Your task to perform on an android device: turn on javascript in the chrome app Image 0: 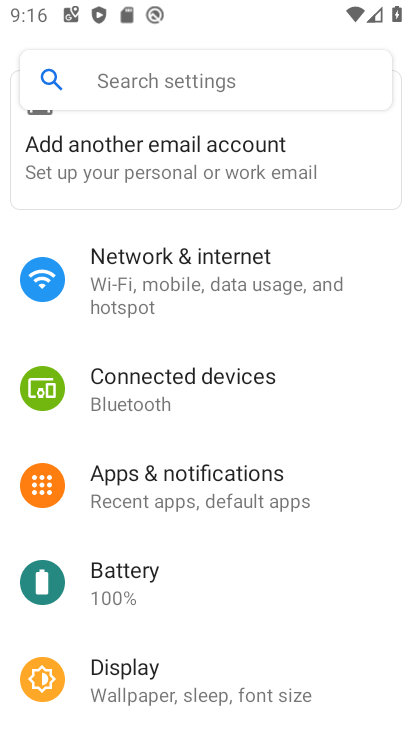
Step 0: press home button
Your task to perform on an android device: turn on javascript in the chrome app Image 1: 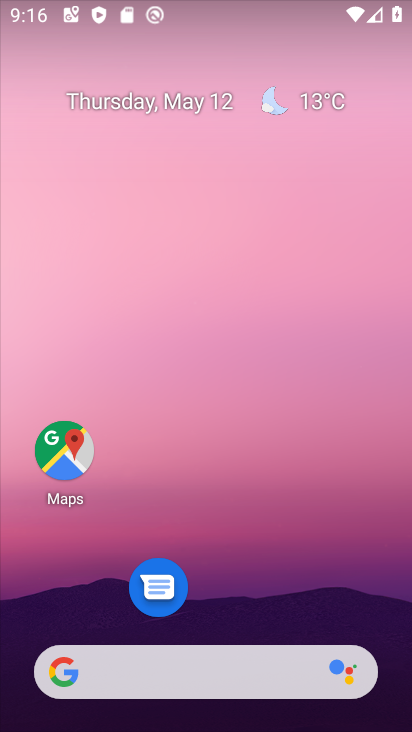
Step 1: drag from (230, 636) to (256, 24)
Your task to perform on an android device: turn on javascript in the chrome app Image 2: 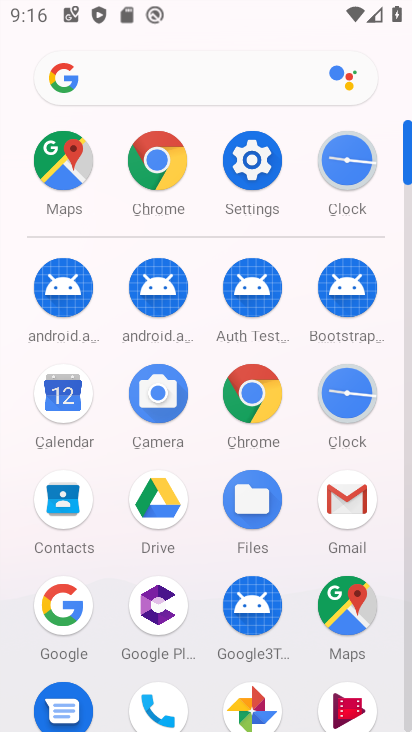
Step 2: click (237, 374)
Your task to perform on an android device: turn on javascript in the chrome app Image 3: 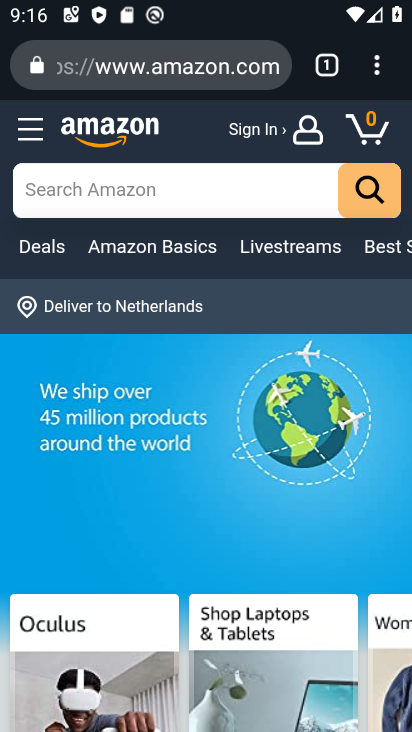
Step 3: click (367, 71)
Your task to perform on an android device: turn on javascript in the chrome app Image 4: 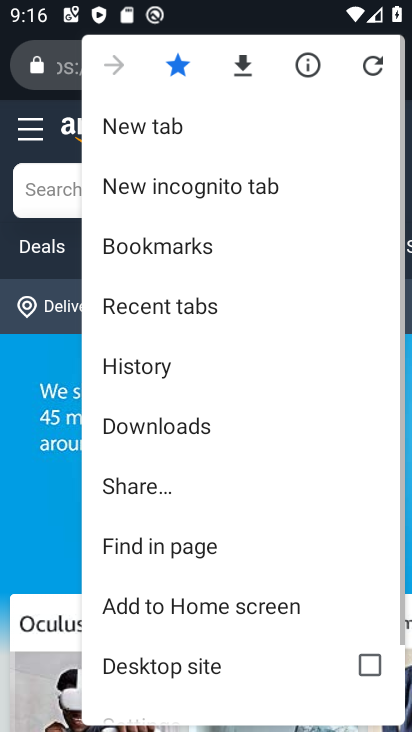
Step 4: drag from (185, 618) to (159, 143)
Your task to perform on an android device: turn on javascript in the chrome app Image 5: 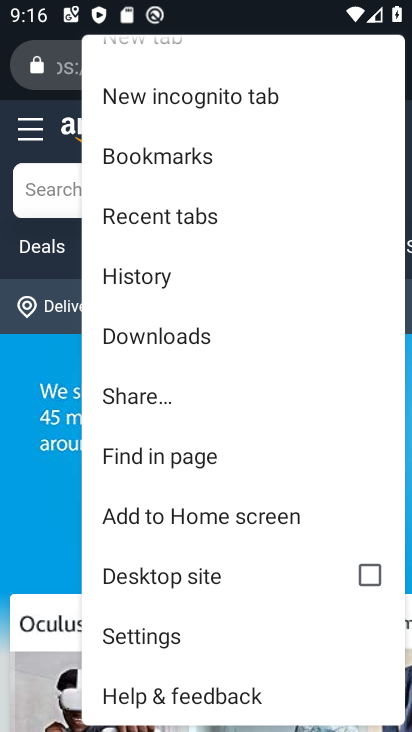
Step 5: click (127, 660)
Your task to perform on an android device: turn on javascript in the chrome app Image 6: 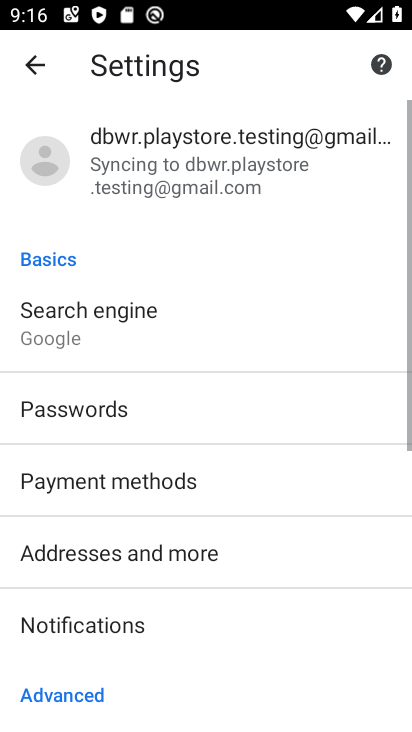
Step 6: drag from (140, 613) to (100, 35)
Your task to perform on an android device: turn on javascript in the chrome app Image 7: 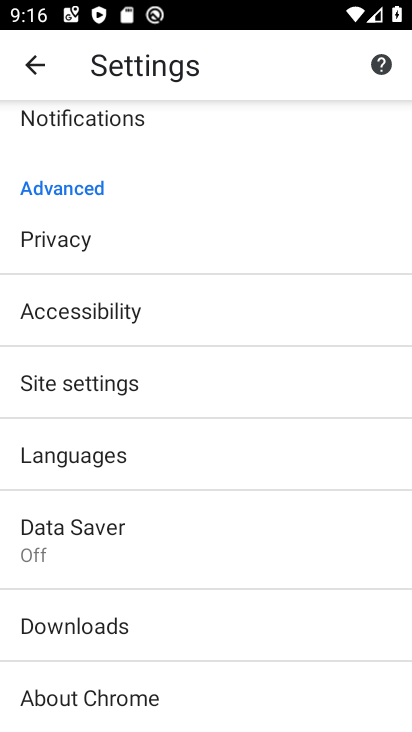
Step 7: click (72, 262)
Your task to perform on an android device: turn on javascript in the chrome app Image 8: 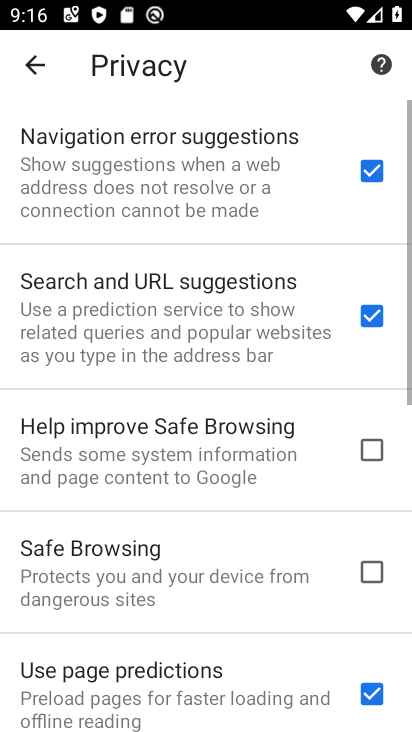
Step 8: click (39, 65)
Your task to perform on an android device: turn on javascript in the chrome app Image 9: 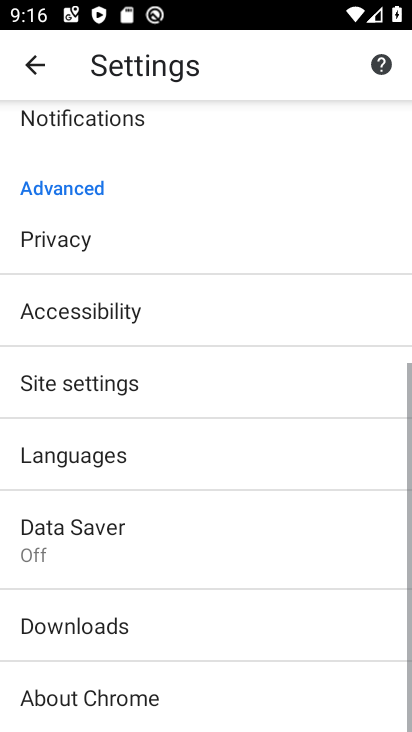
Step 9: click (69, 380)
Your task to perform on an android device: turn on javascript in the chrome app Image 10: 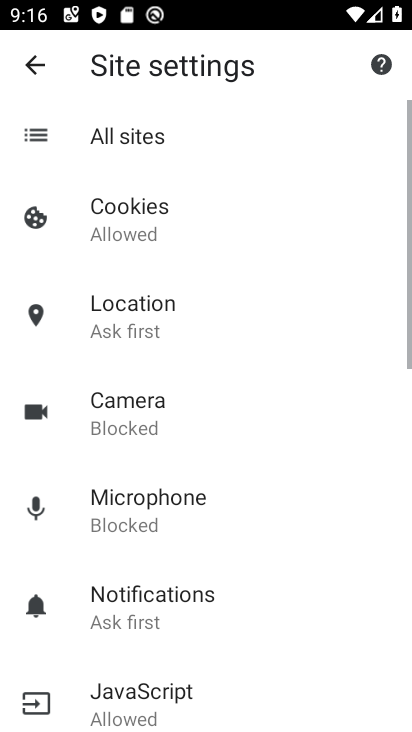
Step 10: drag from (187, 689) to (147, 329)
Your task to perform on an android device: turn on javascript in the chrome app Image 11: 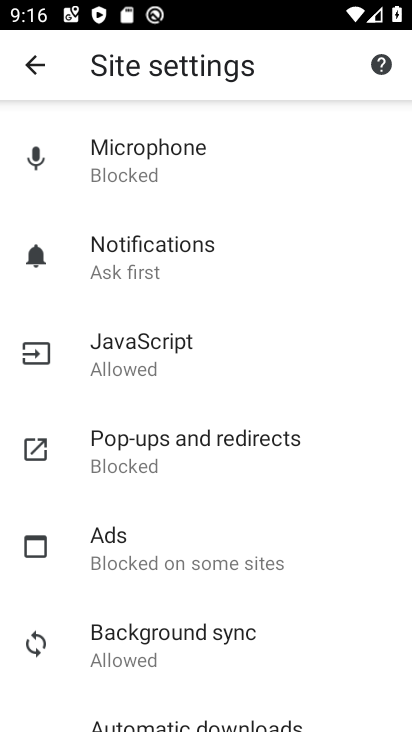
Step 11: click (148, 348)
Your task to perform on an android device: turn on javascript in the chrome app Image 12: 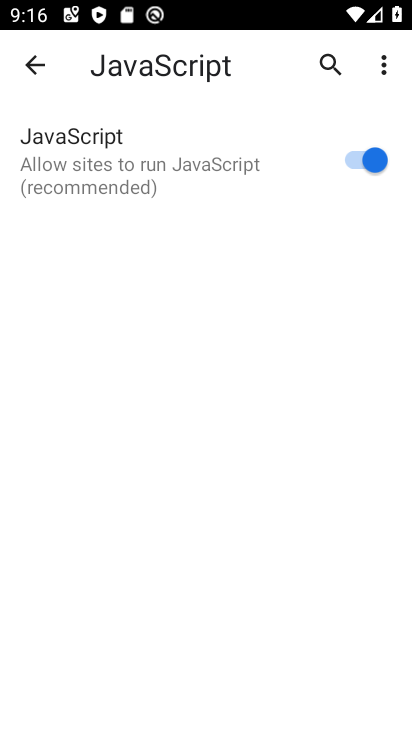
Step 12: task complete